Your task to perform on an android device: open device folders in google photos Image 0: 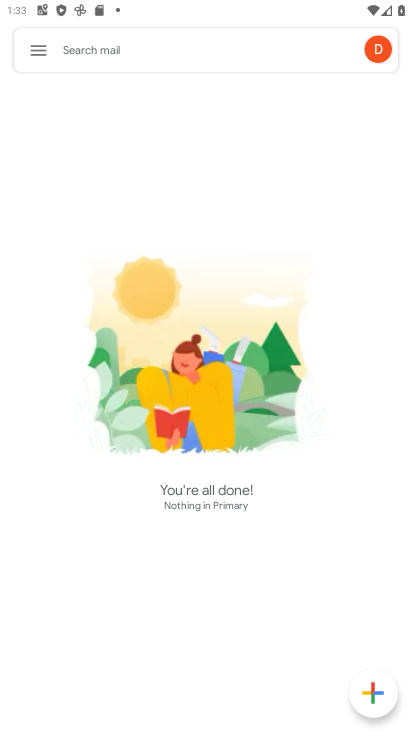
Step 0: press home button
Your task to perform on an android device: open device folders in google photos Image 1: 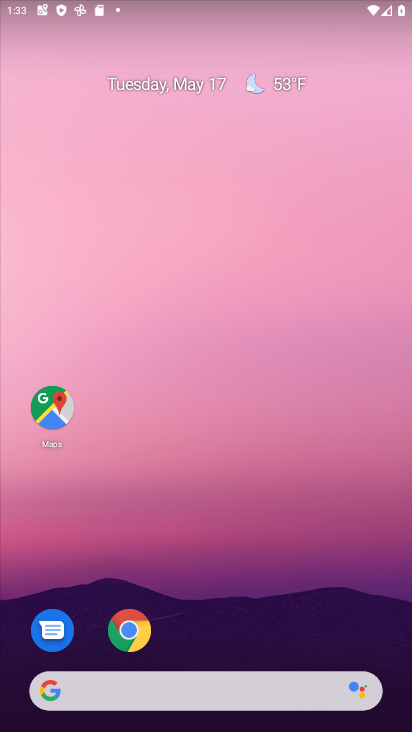
Step 1: drag from (191, 673) to (219, 139)
Your task to perform on an android device: open device folders in google photos Image 2: 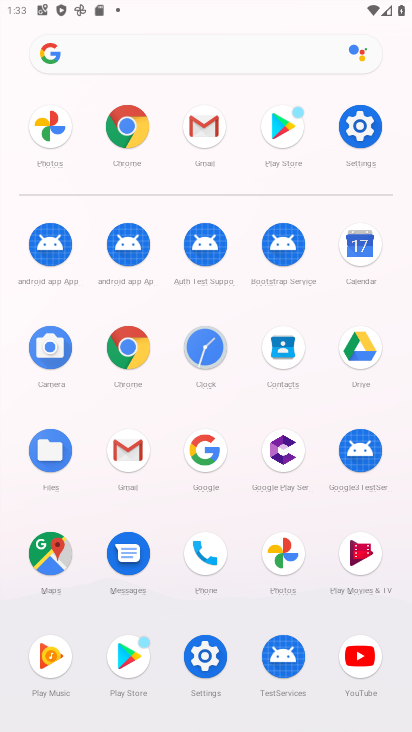
Step 2: click (279, 517)
Your task to perform on an android device: open device folders in google photos Image 3: 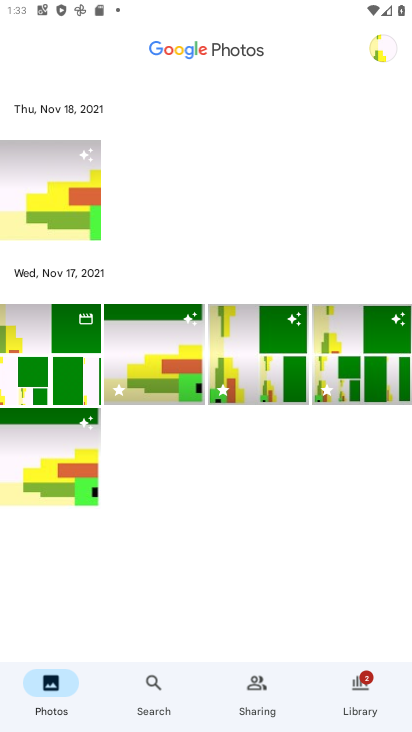
Step 3: click (384, 56)
Your task to perform on an android device: open device folders in google photos Image 4: 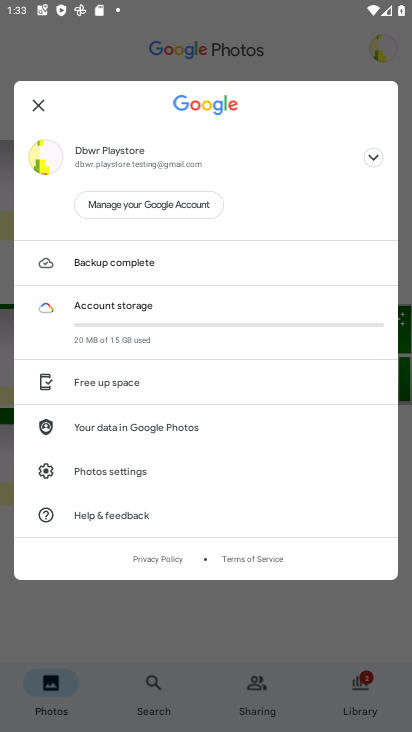
Step 4: task complete